Your task to perform on an android device: delete browsing data in the chrome app Image 0: 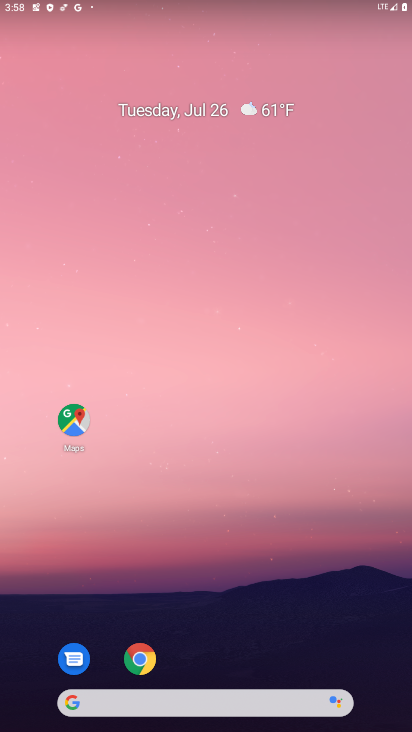
Step 0: drag from (329, 654) to (299, 74)
Your task to perform on an android device: delete browsing data in the chrome app Image 1: 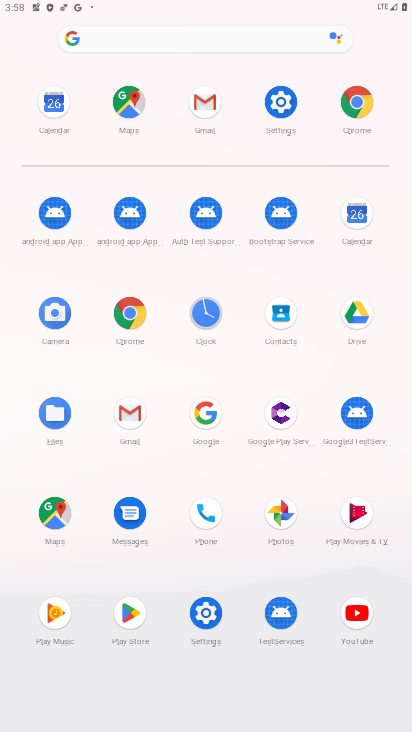
Step 1: click (355, 95)
Your task to perform on an android device: delete browsing data in the chrome app Image 2: 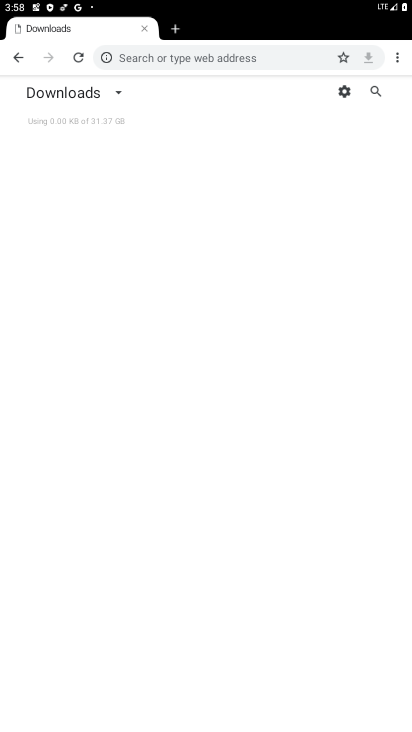
Step 2: click (402, 50)
Your task to perform on an android device: delete browsing data in the chrome app Image 3: 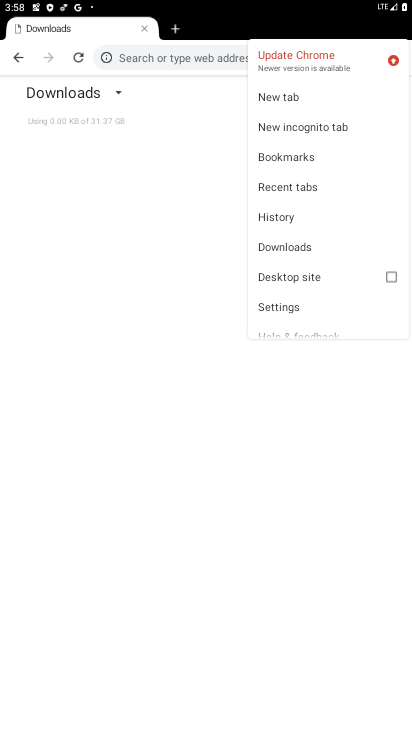
Step 3: click (279, 217)
Your task to perform on an android device: delete browsing data in the chrome app Image 4: 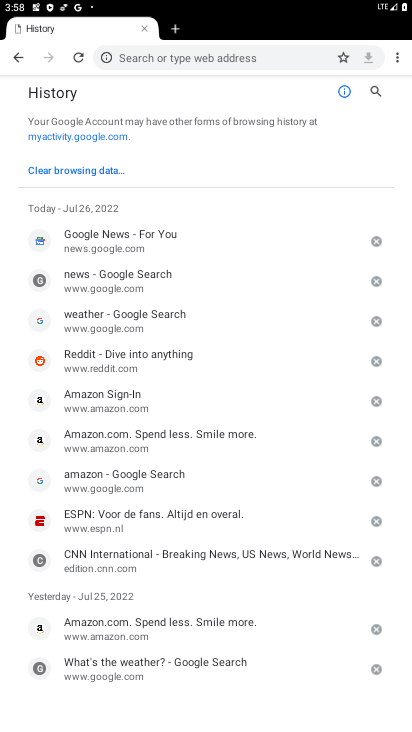
Step 4: click (76, 172)
Your task to perform on an android device: delete browsing data in the chrome app Image 5: 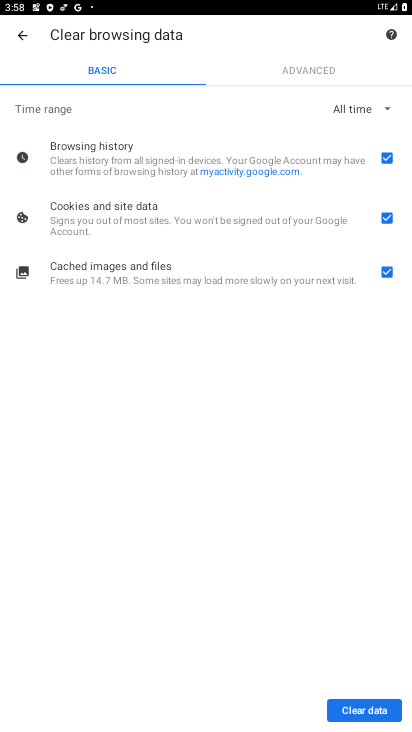
Step 5: click (360, 705)
Your task to perform on an android device: delete browsing data in the chrome app Image 6: 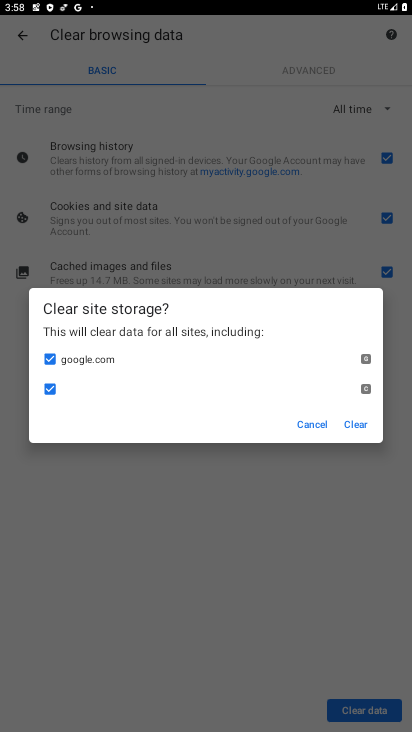
Step 6: click (355, 426)
Your task to perform on an android device: delete browsing data in the chrome app Image 7: 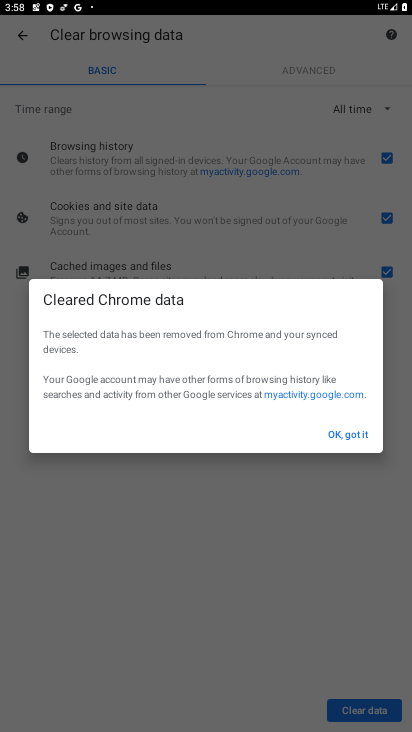
Step 7: task complete